Your task to perform on an android device: Clear the shopping cart on newegg.com. Add "dell xps" to the cart on newegg.com, then select checkout. Image 0: 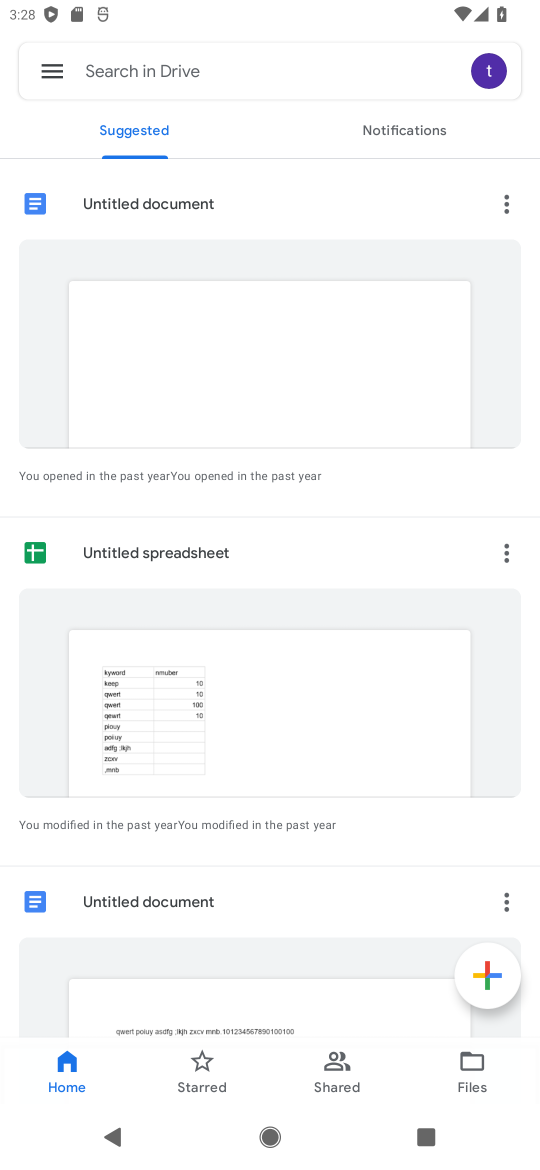
Step 0: press home button
Your task to perform on an android device: Clear the shopping cart on newegg.com. Add "dell xps" to the cart on newegg.com, then select checkout. Image 1: 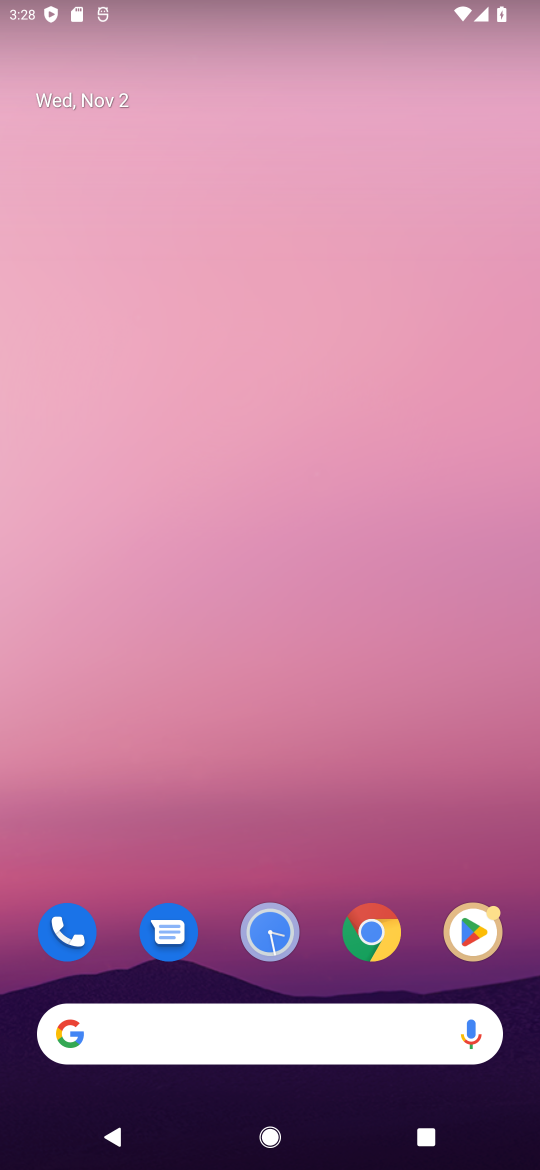
Step 1: click (385, 925)
Your task to perform on an android device: Clear the shopping cart on newegg.com. Add "dell xps" to the cart on newegg.com, then select checkout. Image 2: 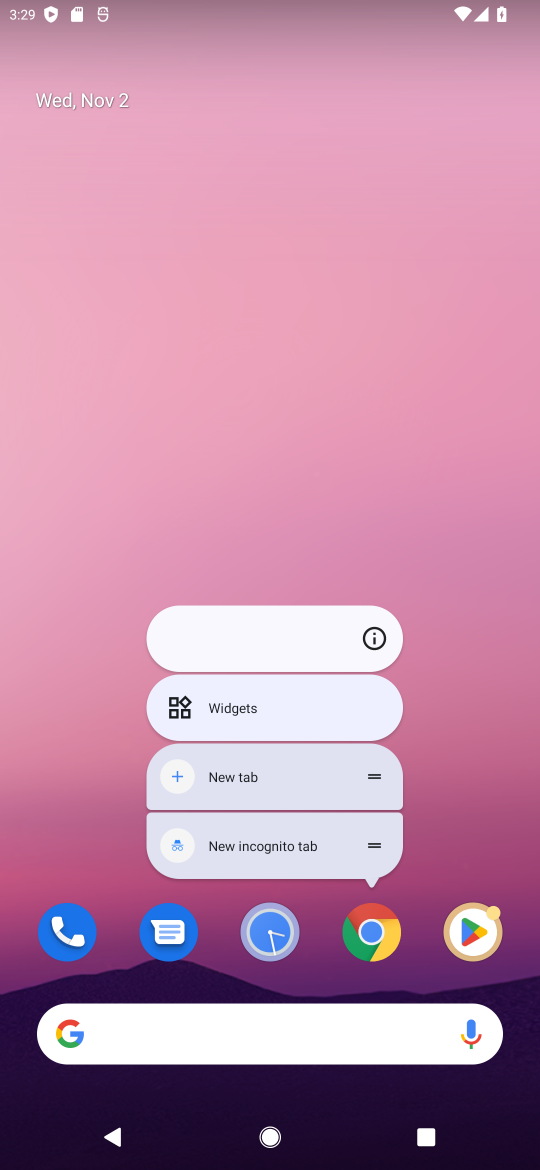
Step 2: click (374, 931)
Your task to perform on an android device: Clear the shopping cart on newegg.com. Add "dell xps" to the cart on newegg.com, then select checkout. Image 3: 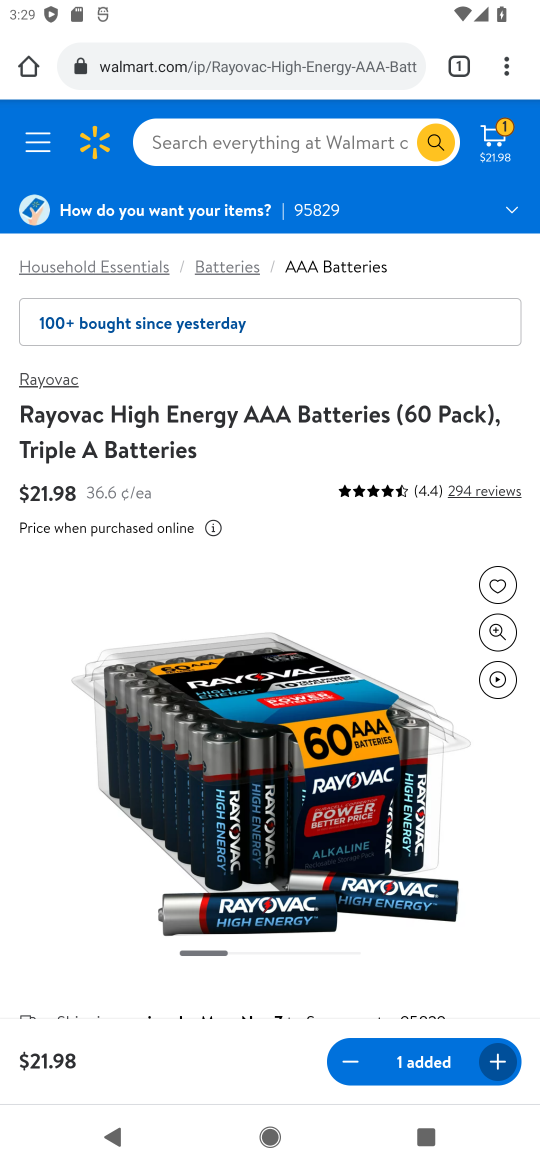
Step 3: click (257, 67)
Your task to perform on an android device: Clear the shopping cart on newegg.com. Add "dell xps" to the cart on newegg.com, then select checkout. Image 4: 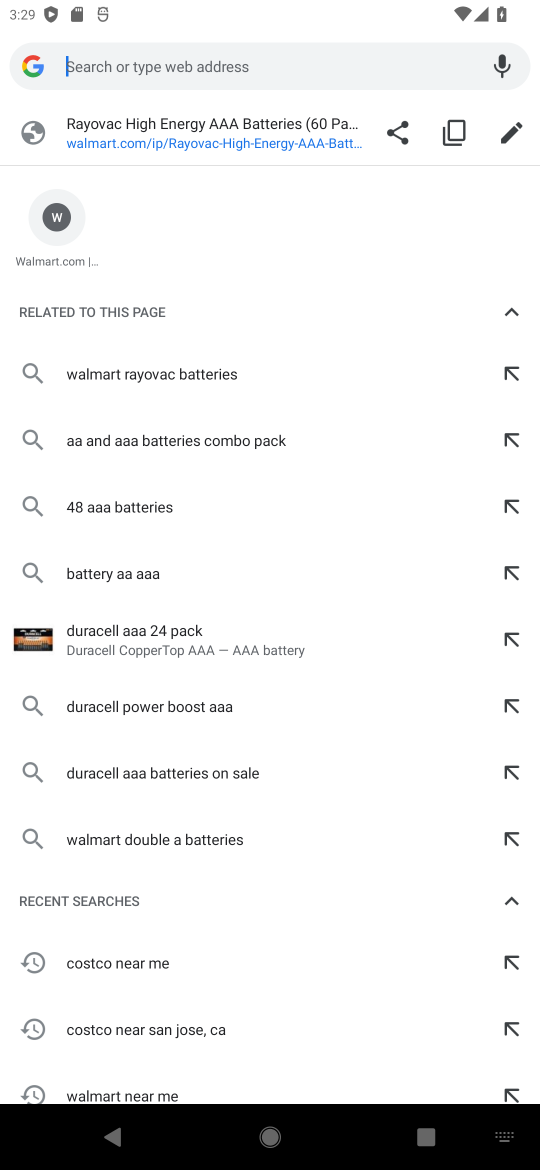
Step 4: click (330, 45)
Your task to perform on an android device: Clear the shopping cart on newegg.com. Add "dell xps" to the cart on newegg.com, then select checkout. Image 5: 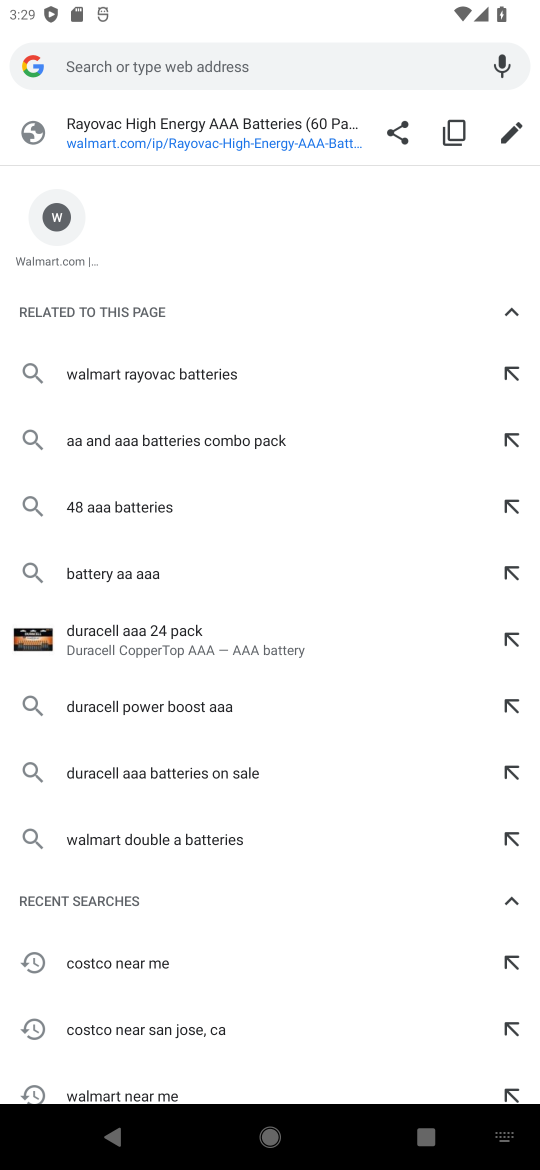
Step 5: type "newegg.com"
Your task to perform on an android device: Clear the shopping cart on newegg.com. Add "dell xps" to the cart on newegg.com, then select checkout. Image 6: 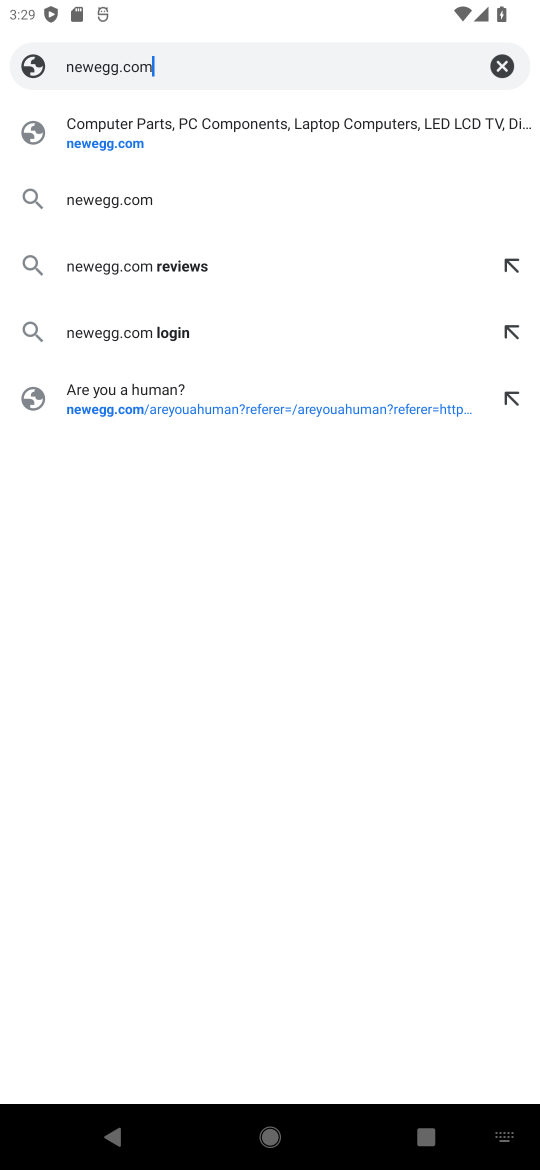
Step 6: click (119, 197)
Your task to perform on an android device: Clear the shopping cart on newegg.com. Add "dell xps" to the cart on newegg.com, then select checkout. Image 7: 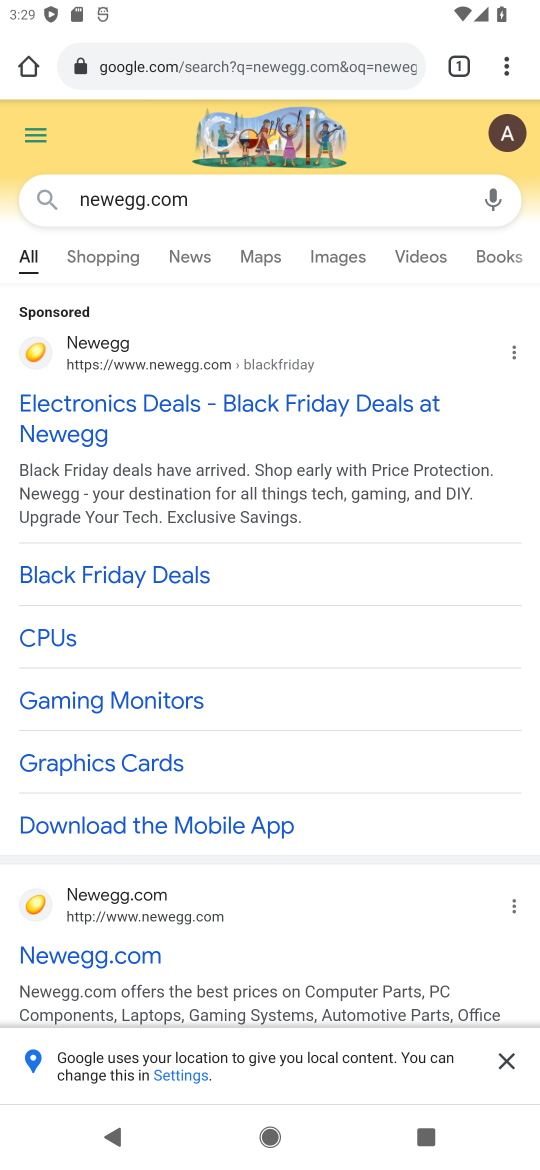
Step 7: click (129, 349)
Your task to perform on an android device: Clear the shopping cart on newegg.com. Add "dell xps" to the cart on newegg.com, then select checkout. Image 8: 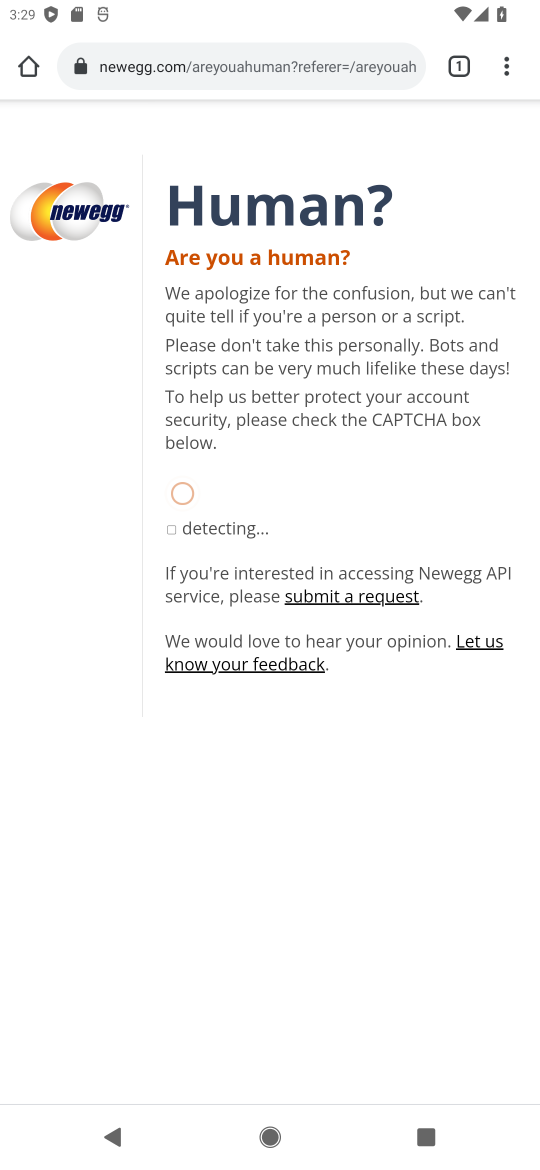
Step 8: press back button
Your task to perform on an android device: Clear the shopping cart on newegg.com. Add "dell xps" to the cart on newegg.com, then select checkout. Image 9: 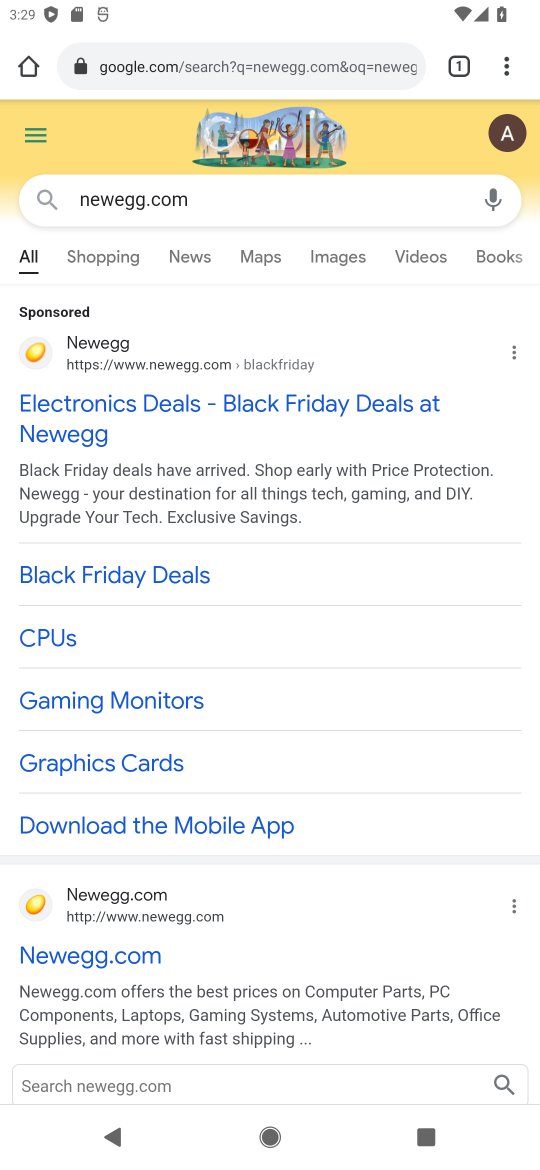
Step 9: click (100, 892)
Your task to perform on an android device: Clear the shopping cart on newegg.com. Add "dell xps" to the cart on newegg.com, then select checkout. Image 10: 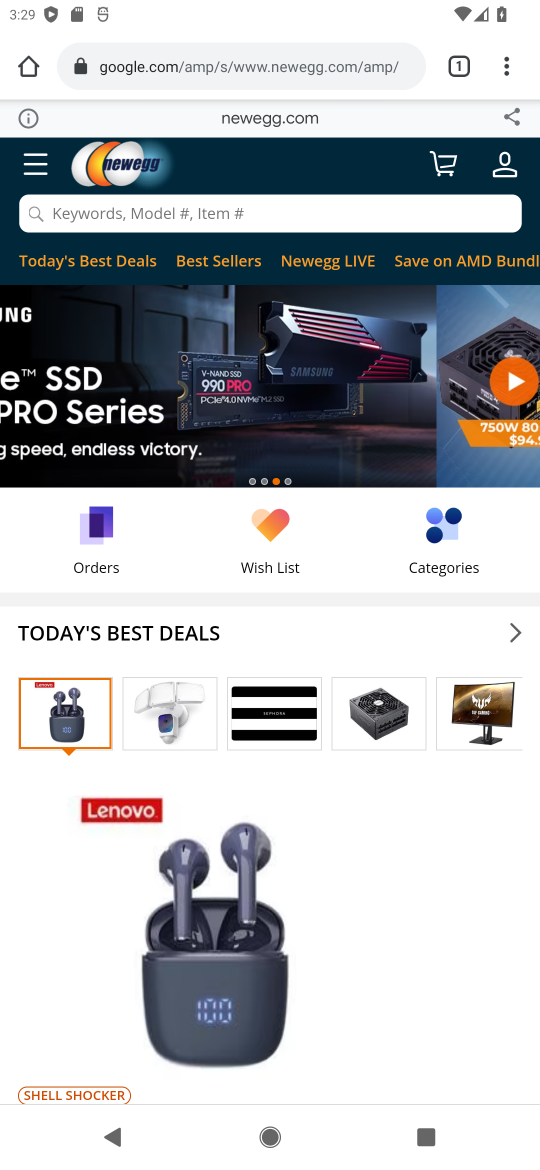
Step 10: click (300, 218)
Your task to perform on an android device: Clear the shopping cart on newegg.com. Add "dell xps" to the cart on newegg.com, then select checkout. Image 11: 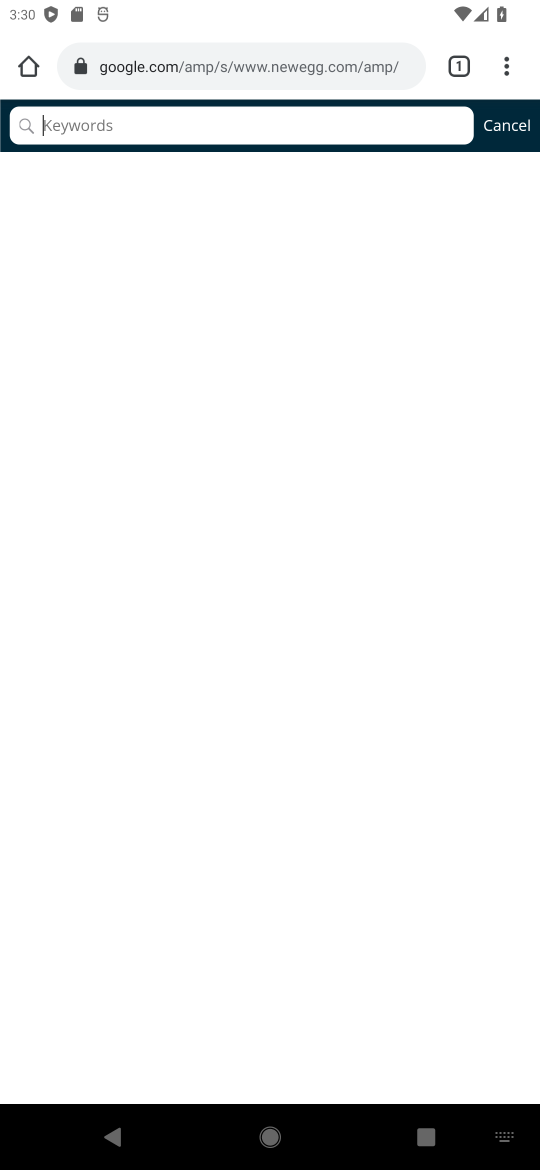
Step 11: type "dell xps"
Your task to perform on an android device: Clear the shopping cart on newegg.com. Add "dell xps" to the cart on newegg.com, then select checkout. Image 12: 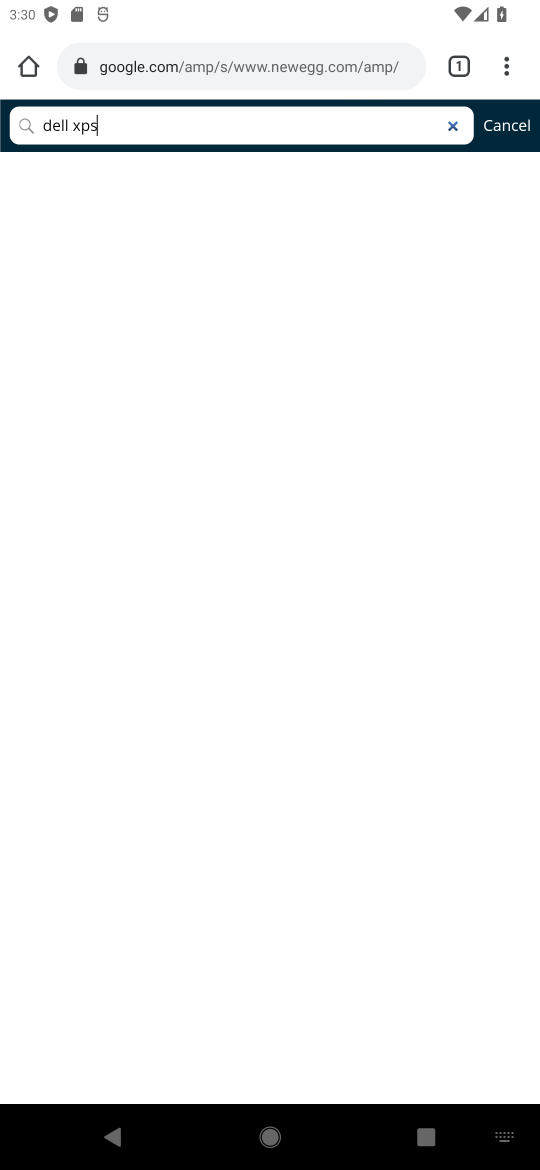
Step 12: click (419, 195)
Your task to perform on an android device: Clear the shopping cart on newegg.com. Add "dell xps" to the cart on newegg.com, then select checkout. Image 13: 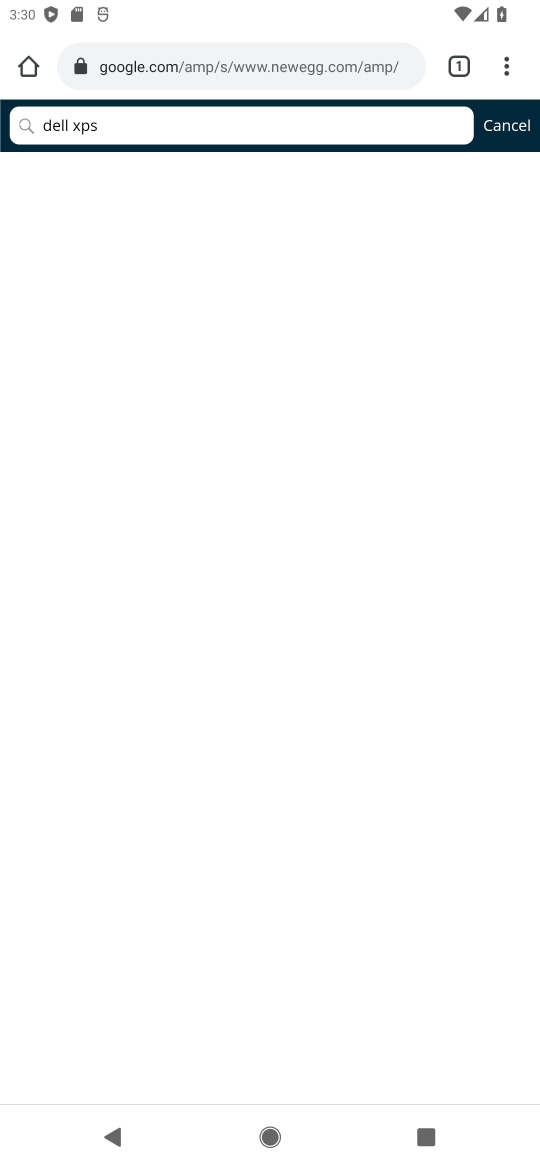
Step 13: click (405, 123)
Your task to perform on an android device: Clear the shopping cart on newegg.com. Add "dell xps" to the cart on newegg.com, then select checkout. Image 14: 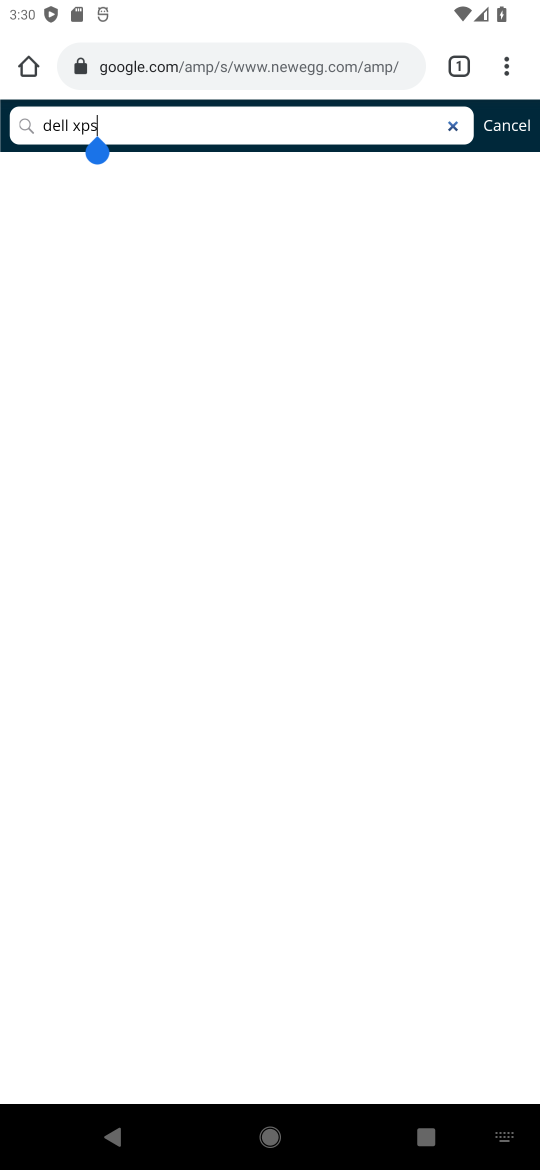
Step 14: click (450, 189)
Your task to perform on an android device: Clear the shopping cart on newegg.com. Add "dell xps" to the cart on newegg.com, then select checkout. Image 15: 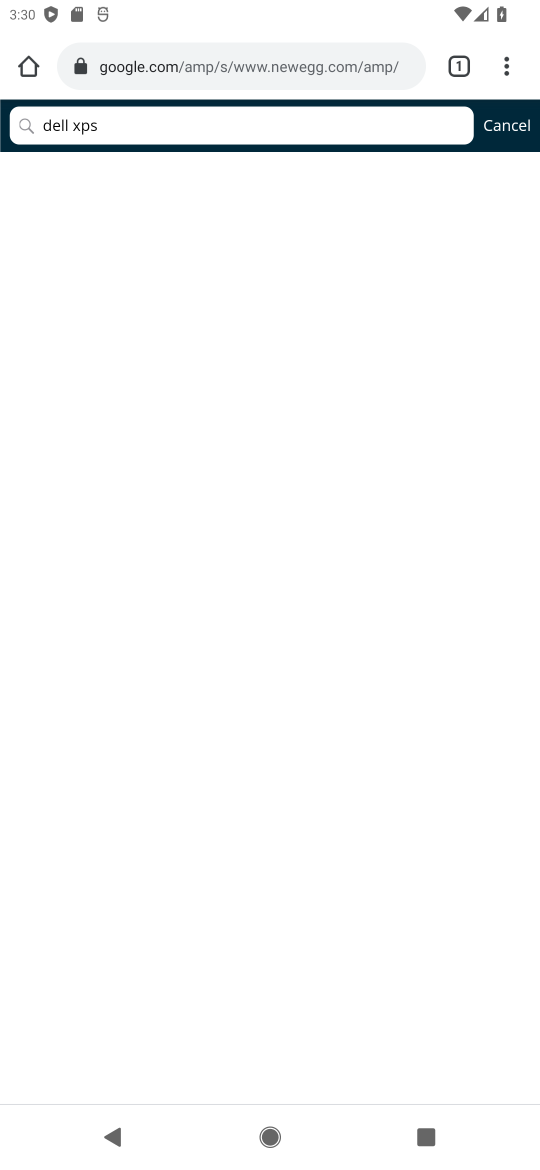
Step 15: task complete